Your task to perform on an android device: What's the weather going to be tomorrow? Image 0: 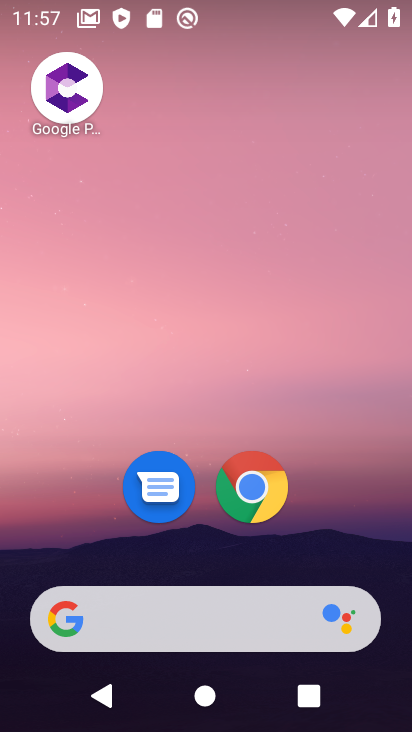
Step 0: drag from (181, 556) to (216, 20)
Your task to perform on an android device: What's the weather going to be tomorrow? Image 1: 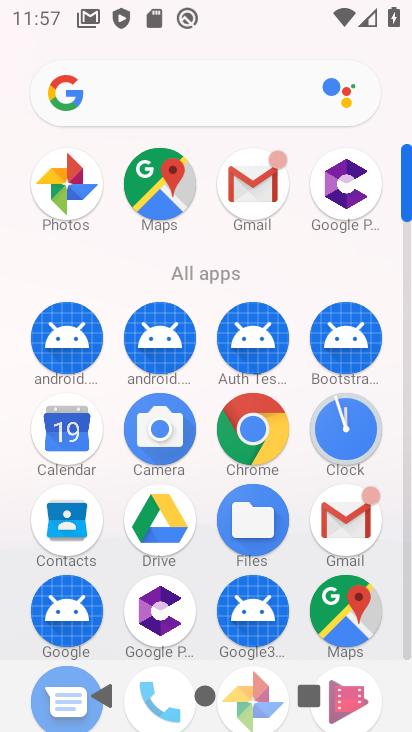
Step 1: click (132, 103)
Your task to perform on an android device: What's the weather going to be tomorrow? Image 2: 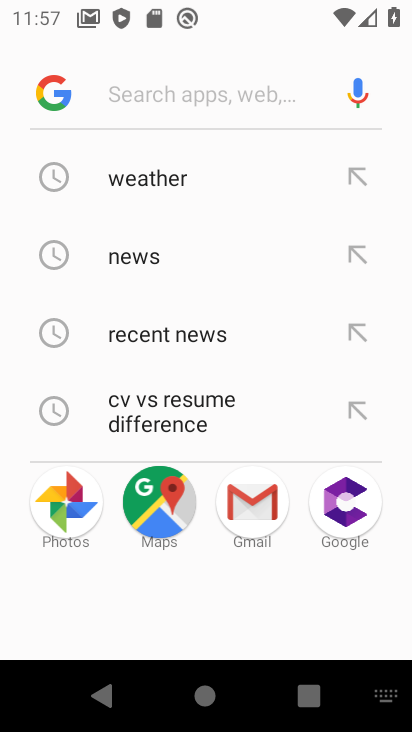
Step 2: click (184, 173)
Your task to perform on an android device: What's the weather going to be tomorrow? Image 3: 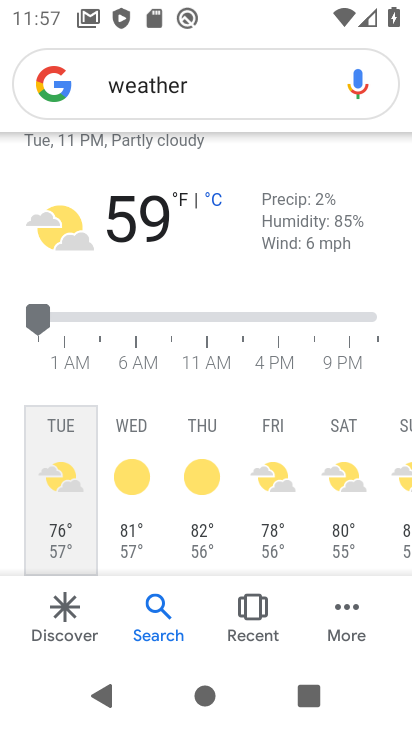
Step 3: click (127, 419)
Your task to perform on an android device: What's the weather going to be tomorrow? Image 4: 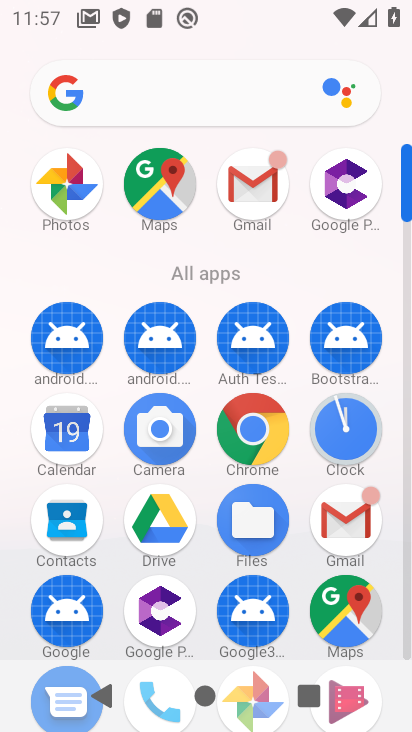
Step 4: task complete